Your task to perform on an android device: install app "Google Translate" Image 0: 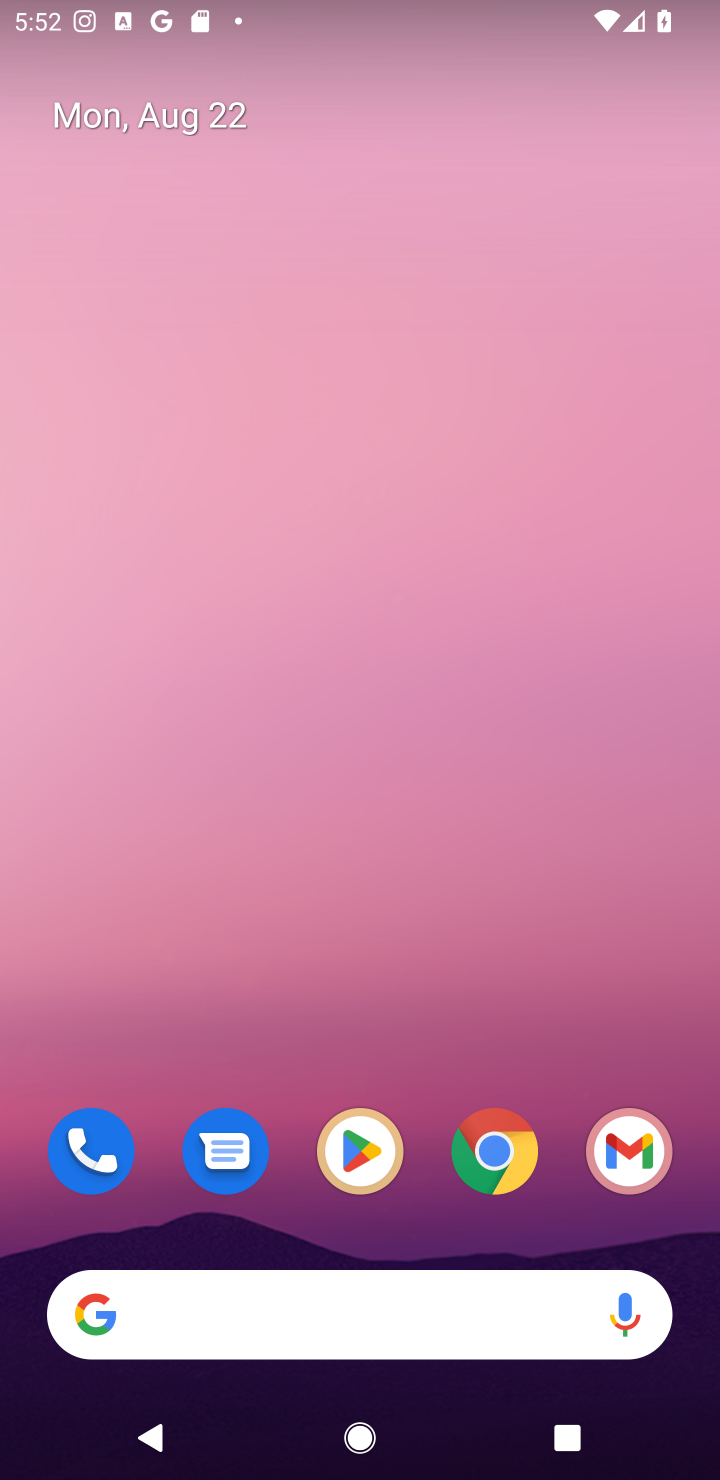
Step 0: click (355, 1148)
Your task to perform on an android device: install app "Google Translate" Image 1: 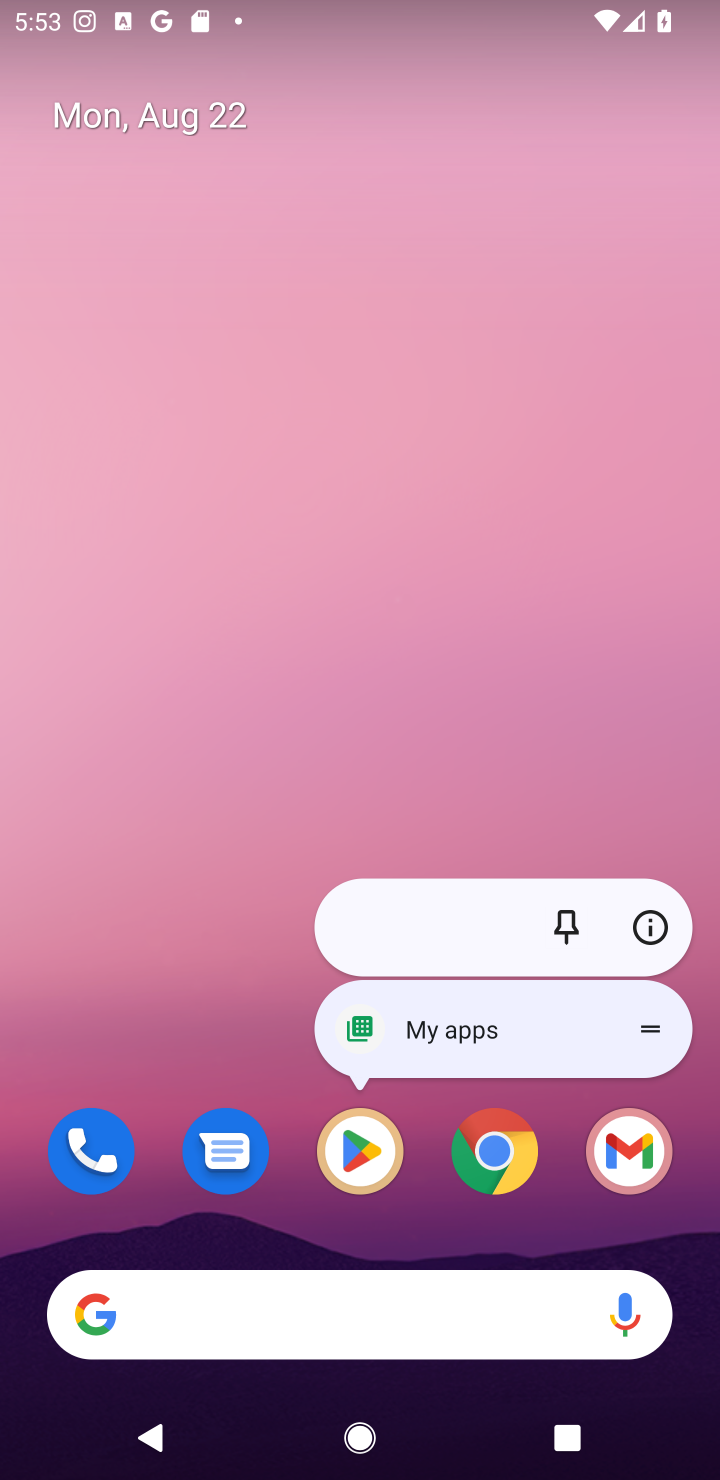
Step 1: click (355, 1157)
Your task to perform on an android device: install app "Google Translate" Image 2: 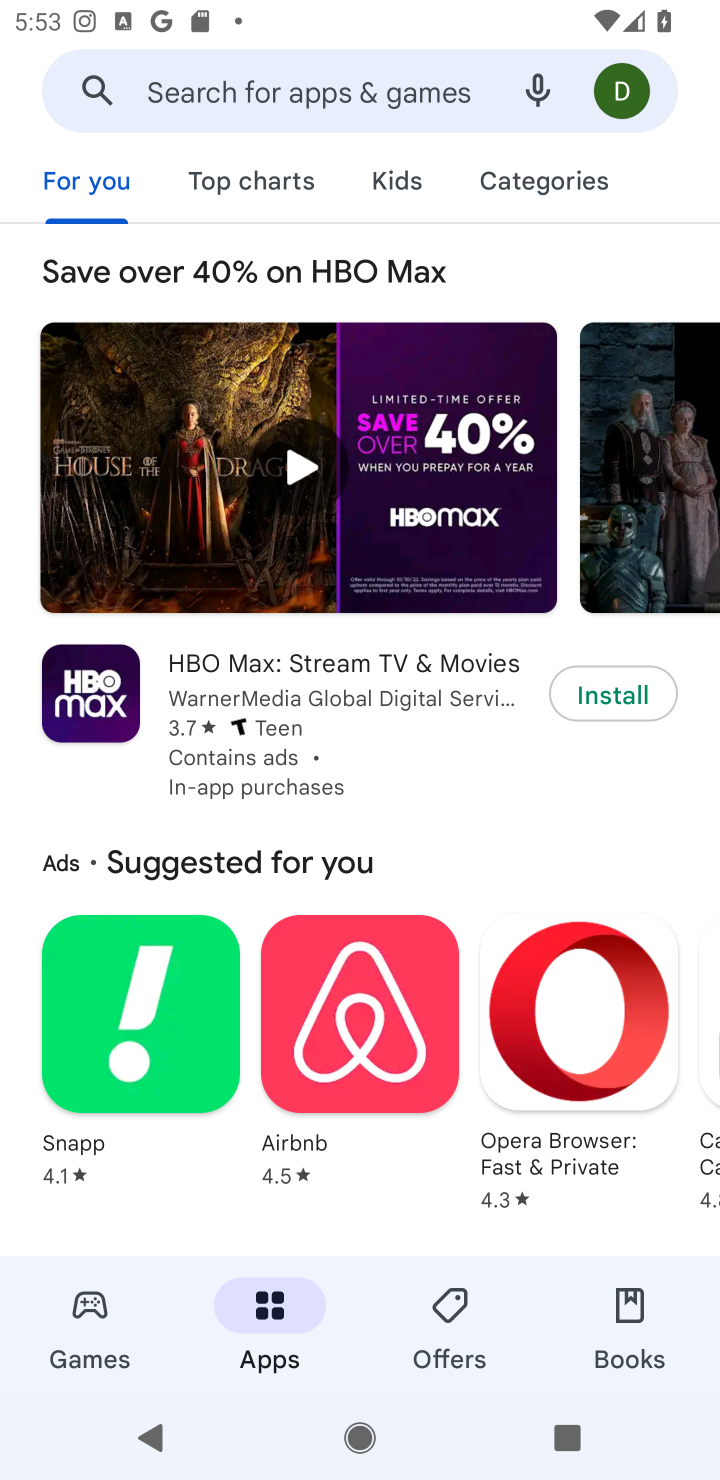
Step 2: click (443, 70)
Your task to perform on an android device: install app "Google Translate" Image 3: 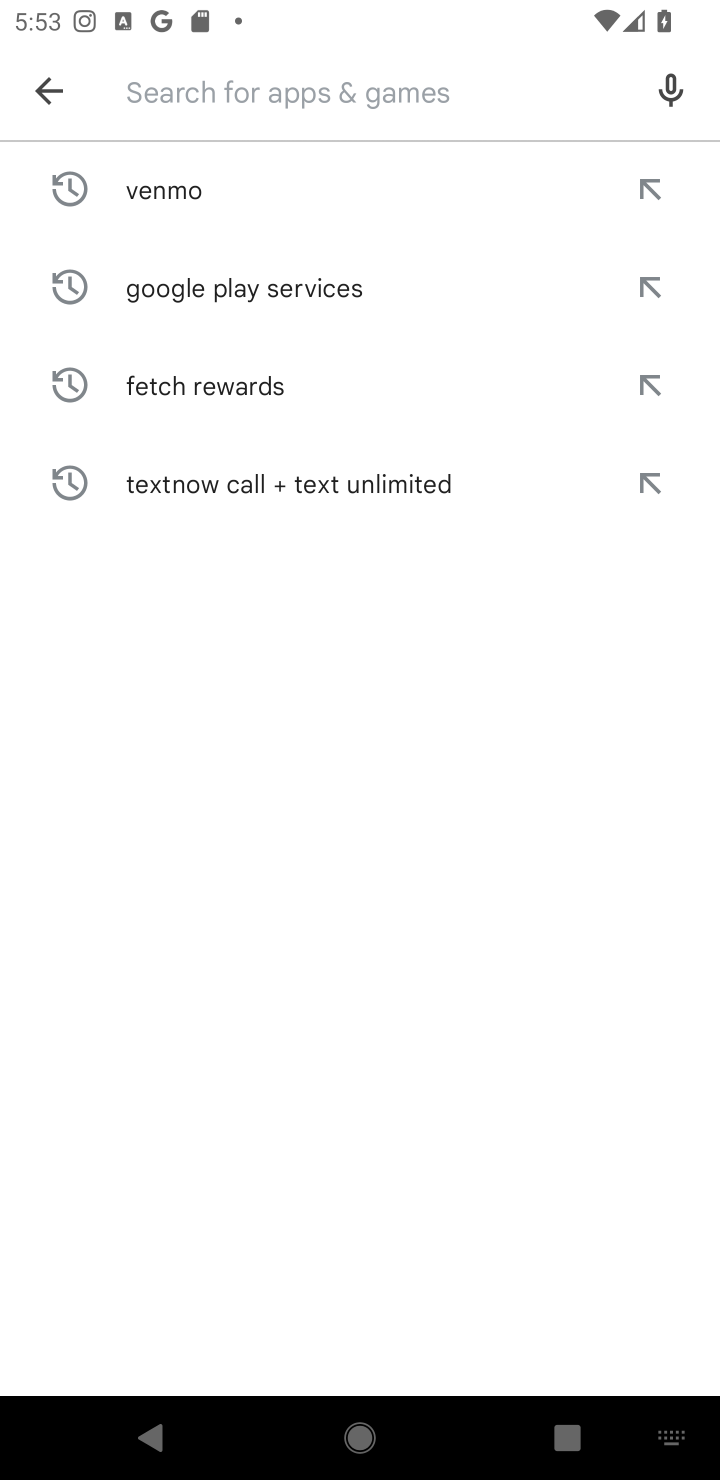
Step 3: type "Google Translate"
Your task to perform on an android device: install app "Google Translate" Image 4: 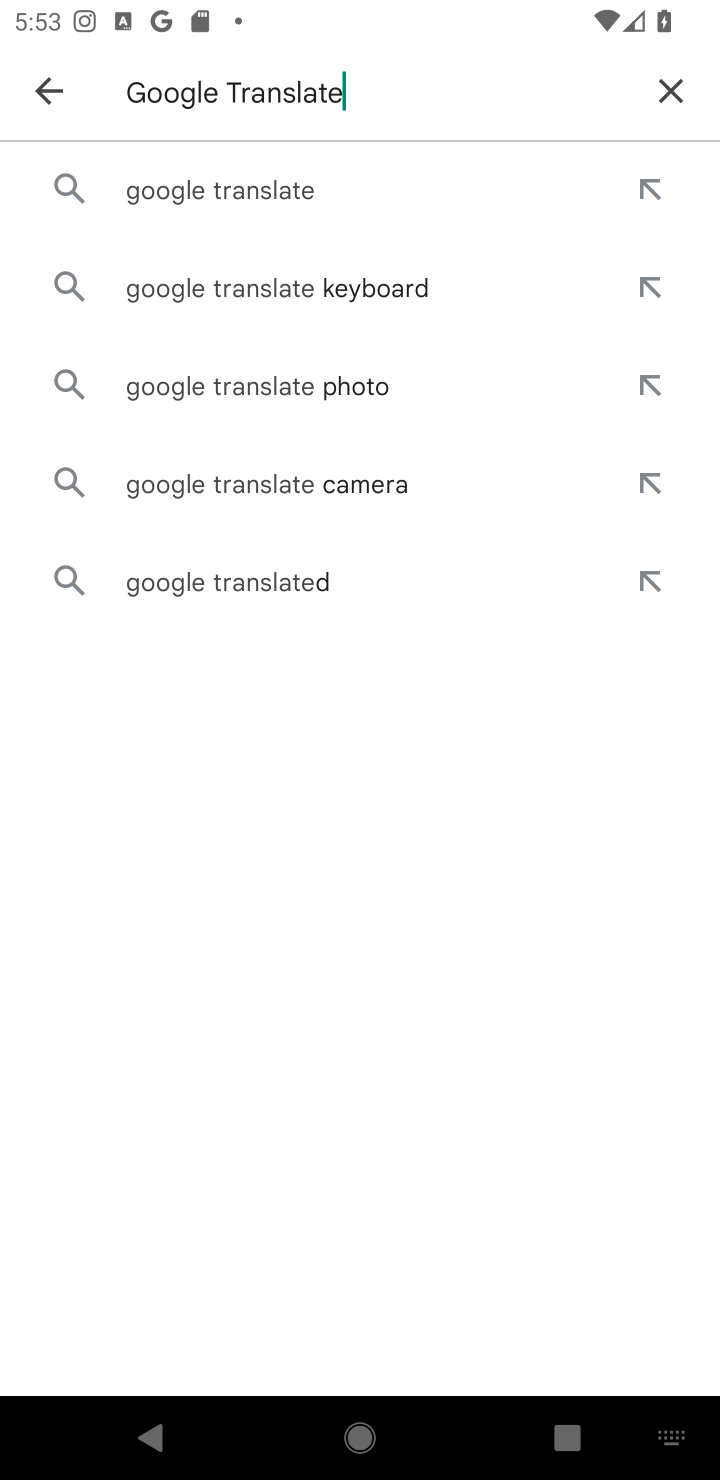
Step 4: click (211, 192)
Your task to perform on an android device: install app "Google Translate" Image 5: 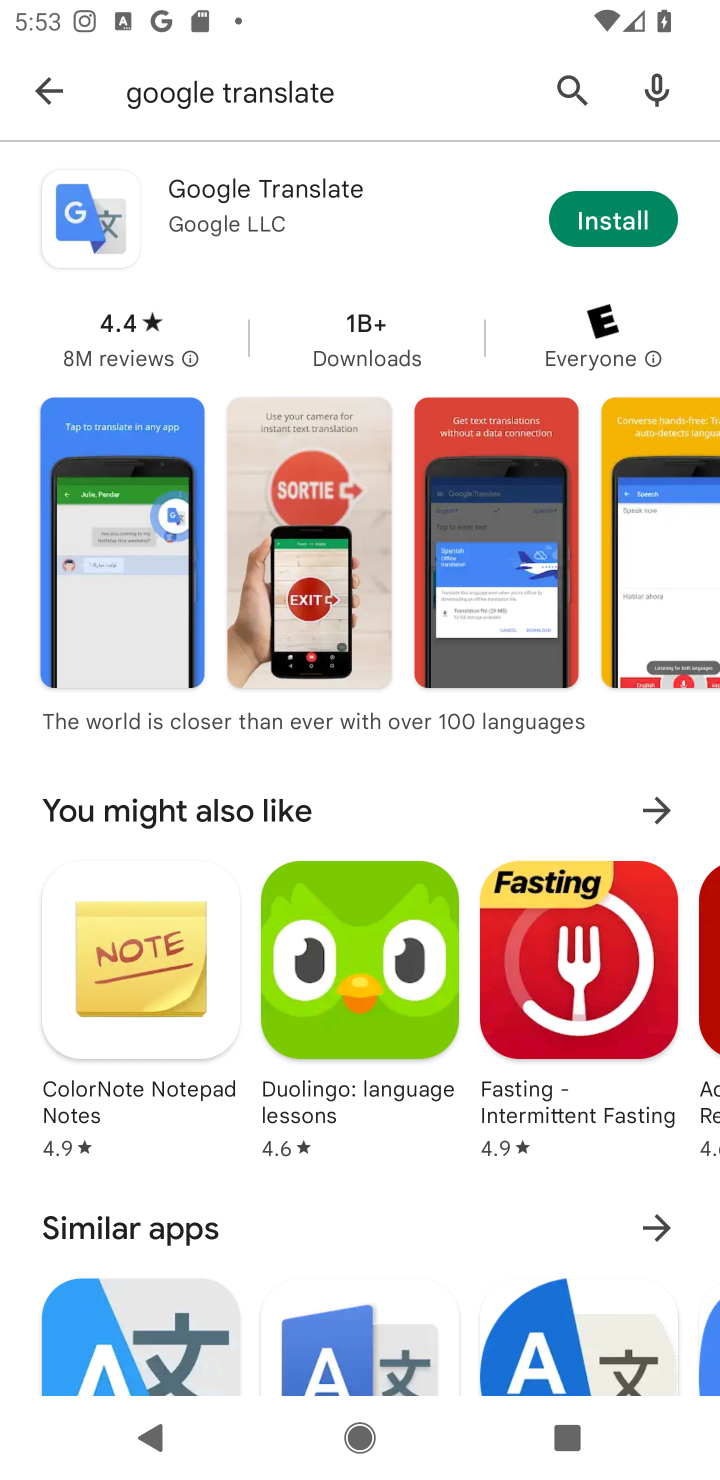
Step 5: click (655, 213)
Your task to perform on an android device: install app "Google Translate" Image 6: 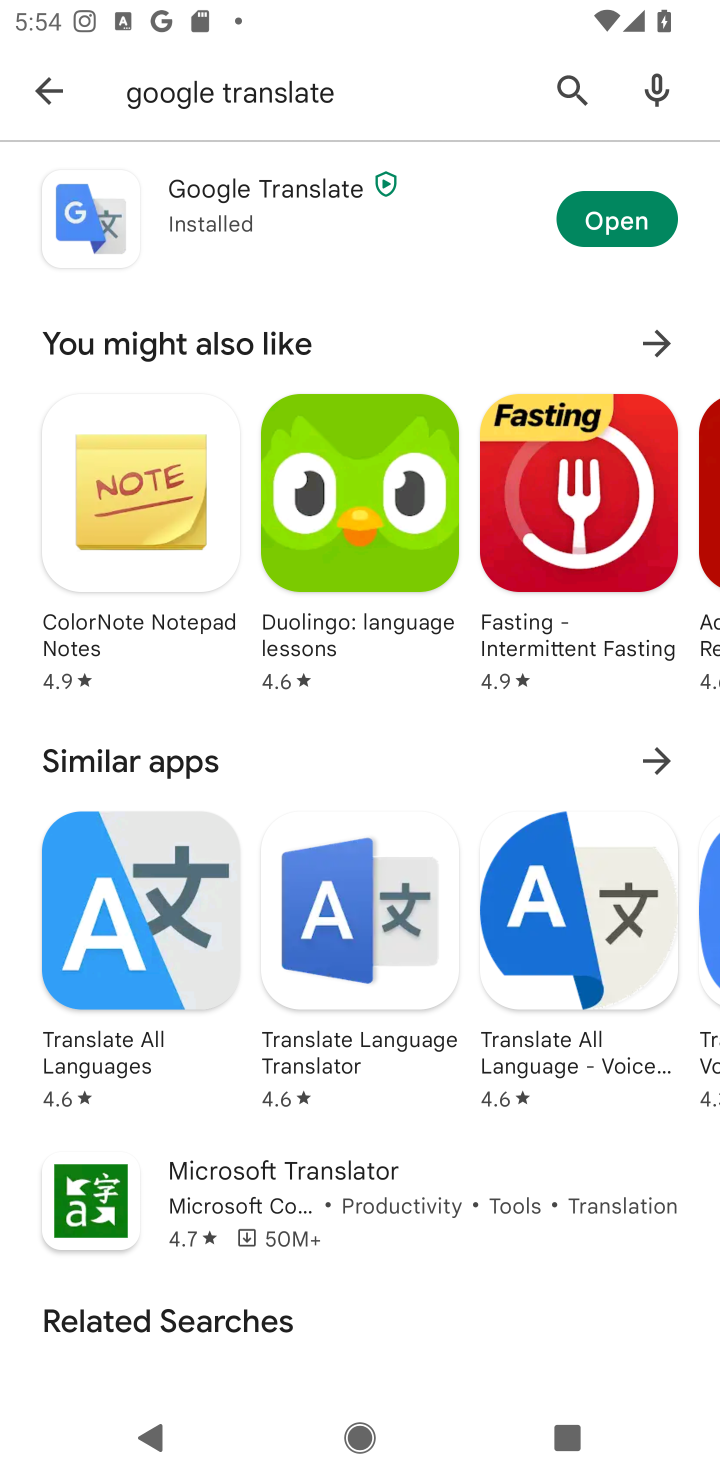
Step 6: task complete